Your task to perform on an android device: Open Google Image 0: 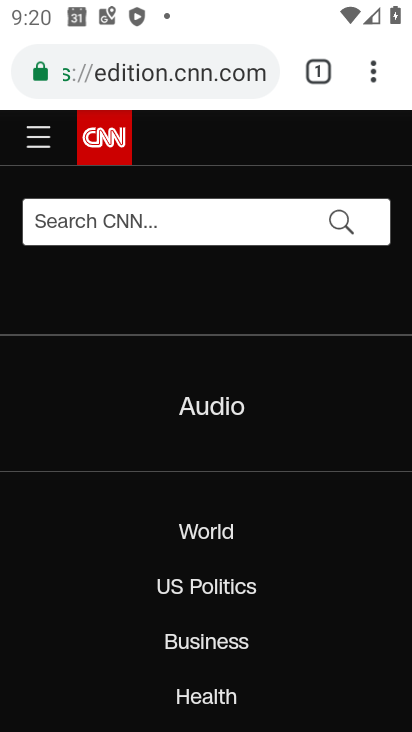
Step 0: press home button
Your task to perform on an android device: Open Google Image 1: 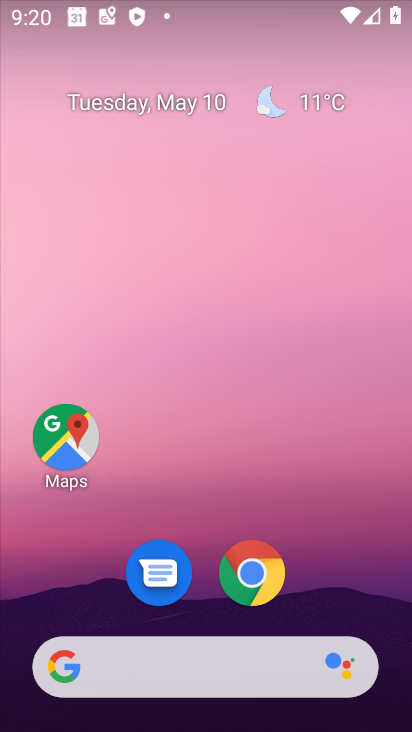
Step 1: drag from (315, 595) to (319, 5)
Your task to perform on an android device: Open Google Image 2: 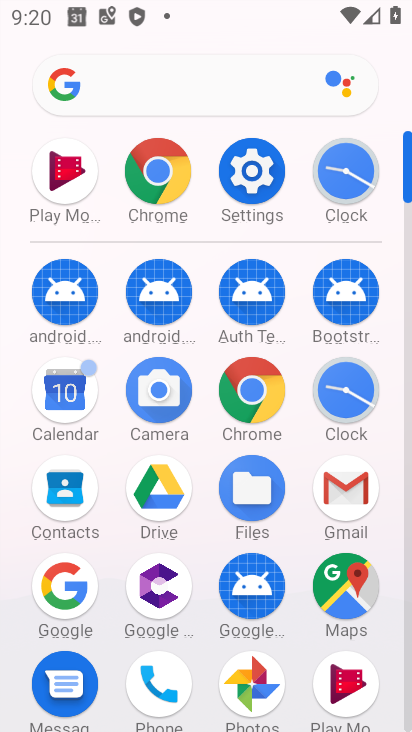
Step 2: click (64, 592)
Your task to perform on an android device: Open Google Image 3: 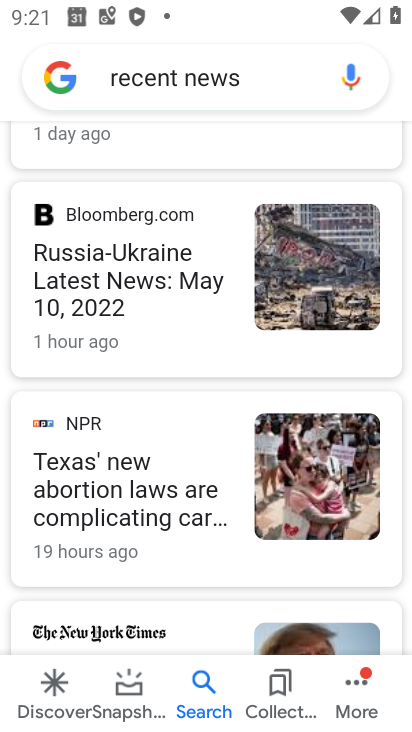
Step 3: task complete